Your task to perform on an android device: Open CNN.com Image 0: 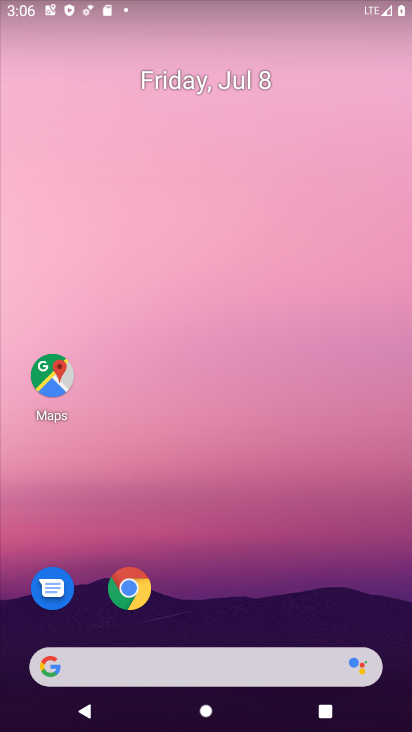
Step 0: drag from (230, 659) to (341, 45)
Your task to perform on an android device: Open CNN.com Image 1: 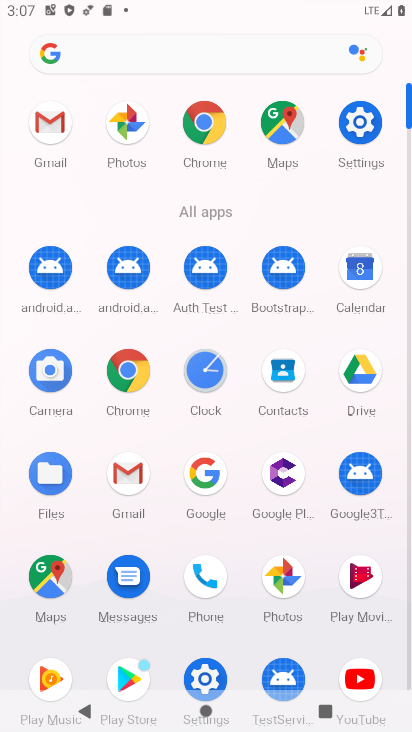
Step 1: click (208, 127)
Your task to perform on an android device: Open CNN.com Image 2: 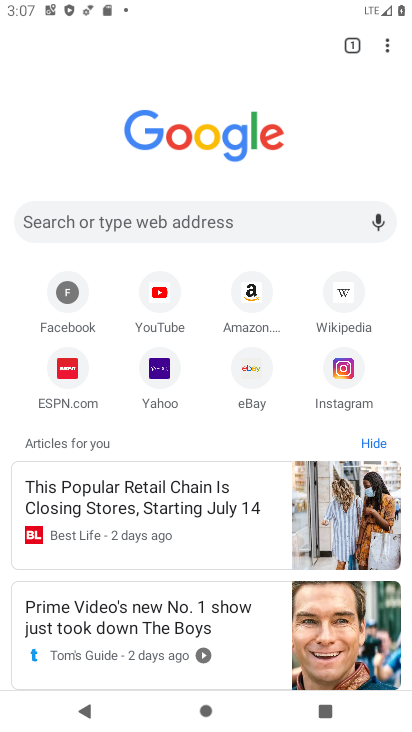
Step 2: click (107, 211)
Your task to perform on an android device: Open CNN.com Image 3: 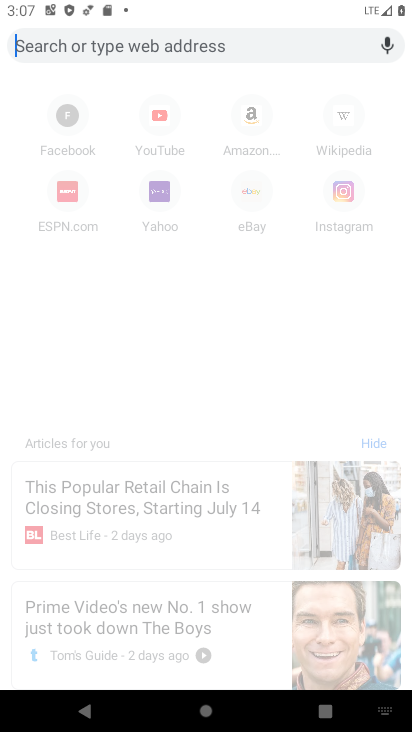
Step 3: type "cnn.com"
Your task to perform on an android device: Open CNN.com Image 4: 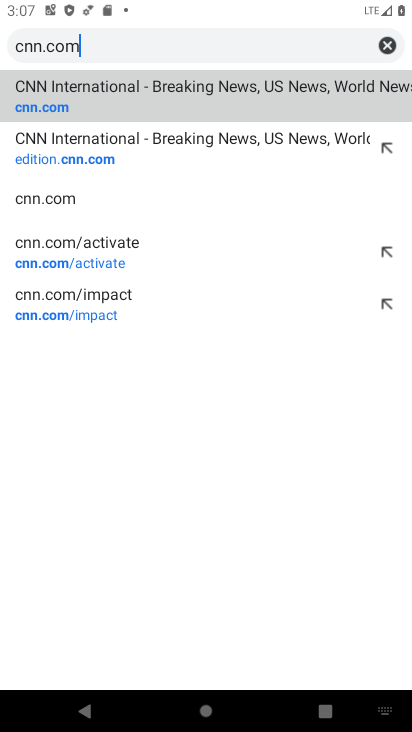
Step 4: click (241, 86)
Your task to perform on an android device: Open CNN.com Image 5: 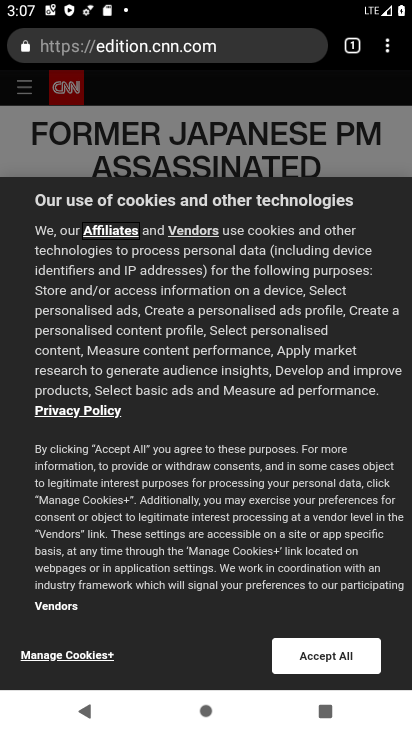
Step 5: click (342, 651)
Your task to perform on an android device: Open CNN.com Image 6: 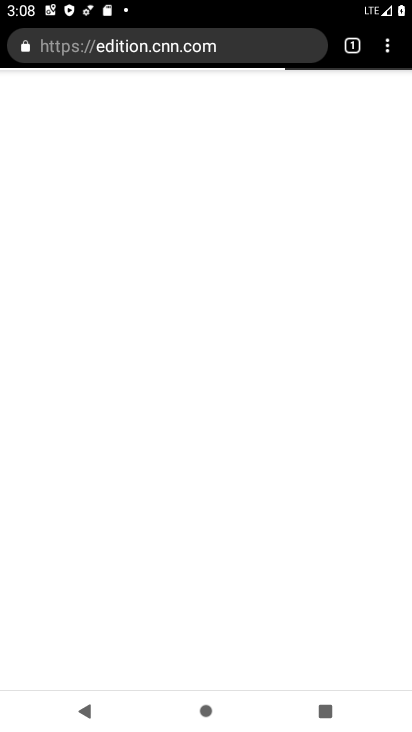
Step 6: task complete